Your task to perform on an android device: Go to Wikipedia Image 0: 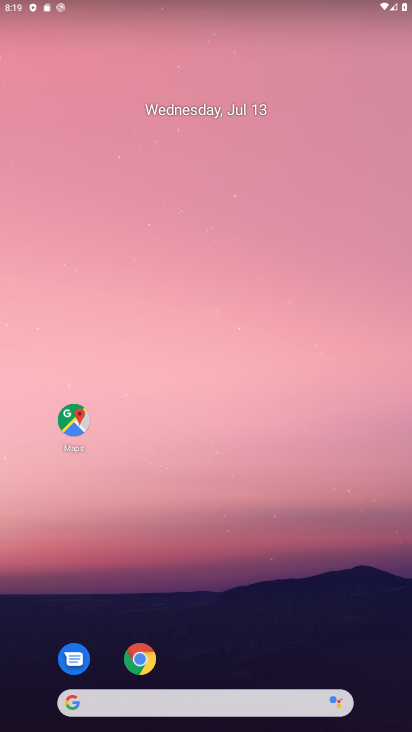
Step 0: click (135, 657)
Your task to perform on an android device: Go to Wikipedia Image 1: 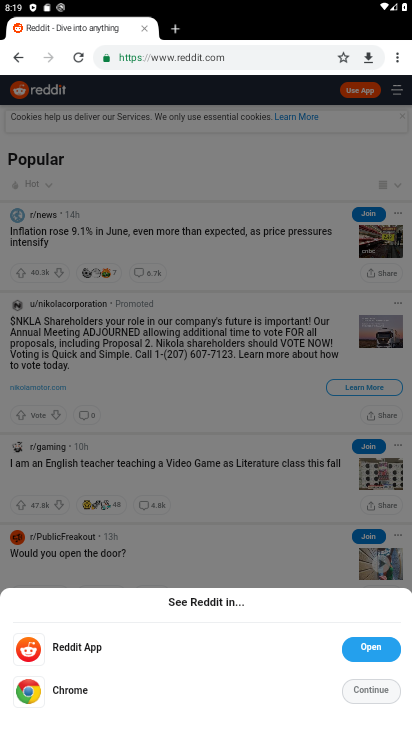
Step 1: press home button
Your task to perform on an android device: Go to Wikipedia Image 2: 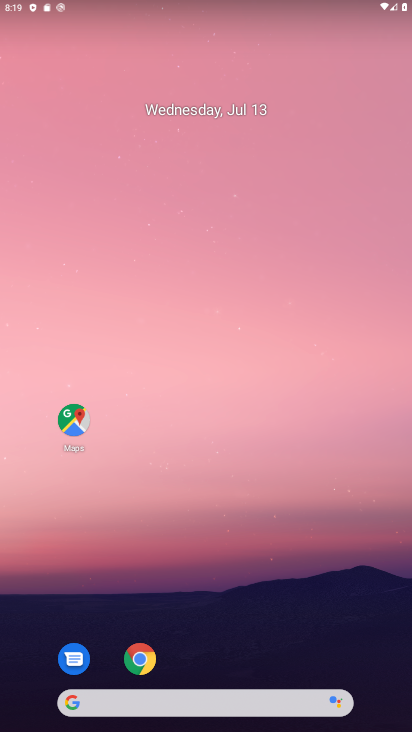
Step 2: click (120, 665)
Your task to perform on an android device: Go to Wikipedia Image 3: 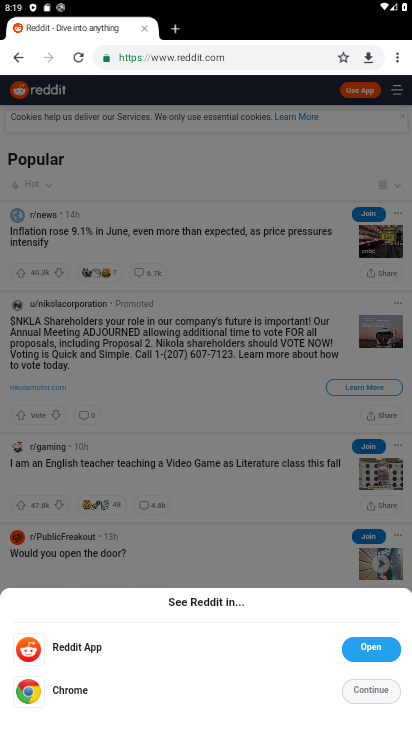
Step 3: click (171, 28)
Your task to perform on an android device: Go to Wikipedia Image 4: 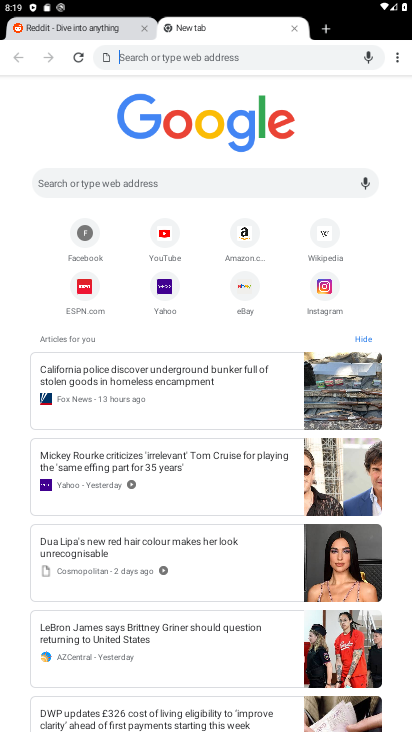
Step 4: click (140, 27)
Your task to perform on an android device: Go to Wikipedia Image 5: 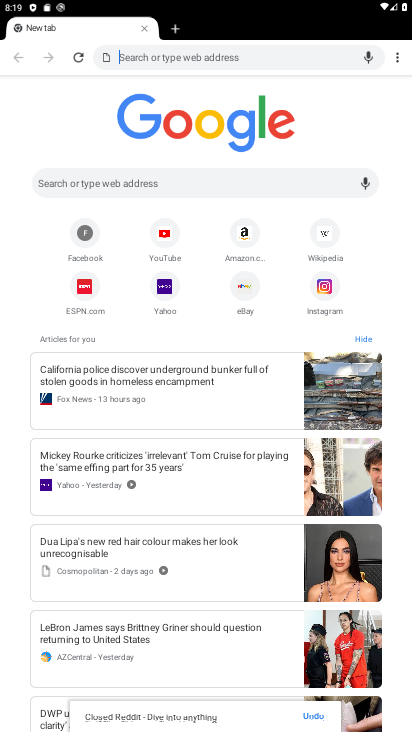
Step 5: click (315, 226)
Your task to perform on an android device: Go to Wikipedia Image 6: 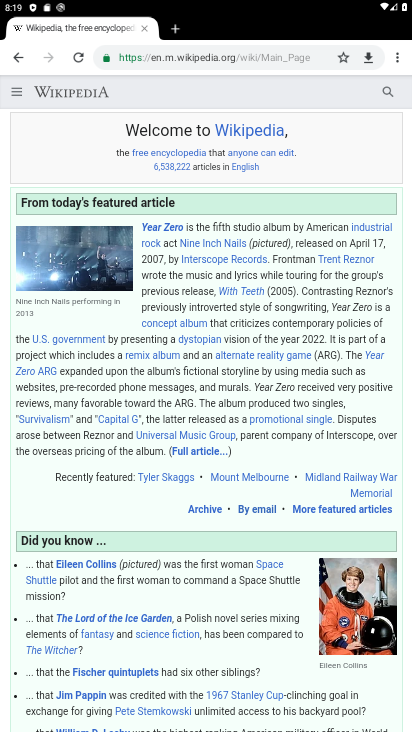
Step 6: task complete